Your task to perform on an android device: empty trash in google photos Image 0: 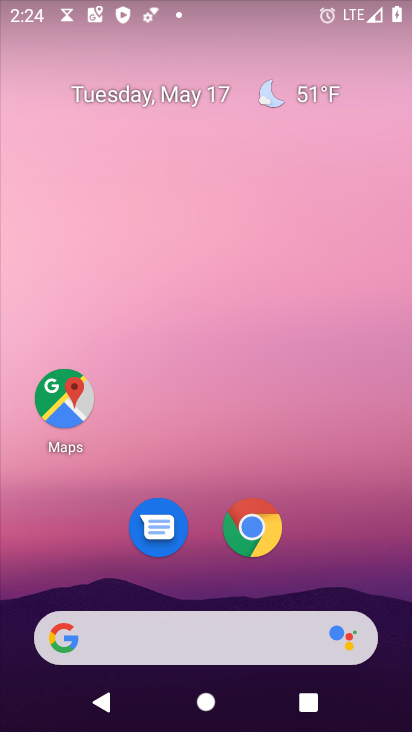
Step 0: drag from (324, 526) to (263, 171)
Your task to perform on an android device: empty trash in google photos Image 1: 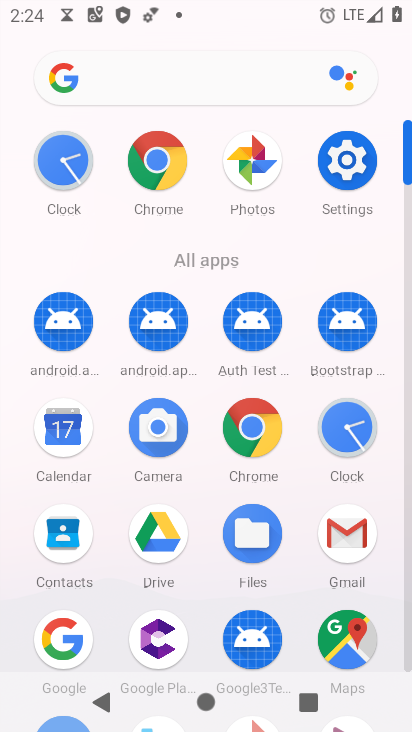
Step 1: click (251, 161)
Your task to perform on an android device: empty trash in google photos Image 2: 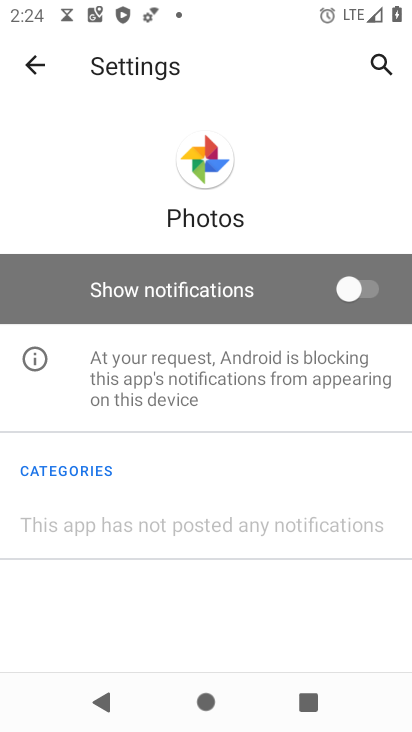
Step 2: click (27, 67)
Your task to perform on an android device: empty trash in google photos Image 3: 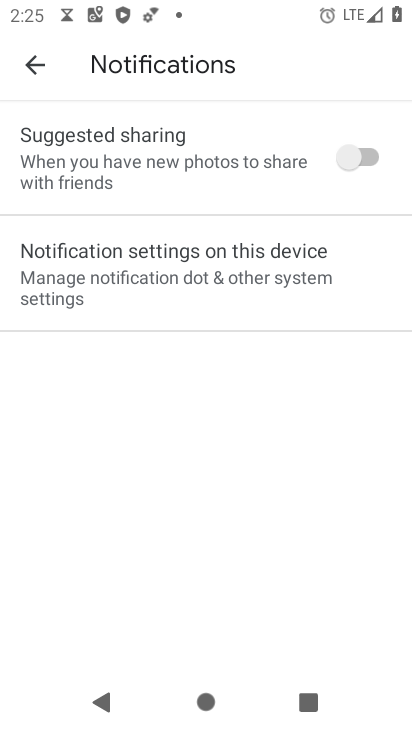
Step 3: click (27, 67)
Your task to perform on an android device: empty trash in google photos Image 4: 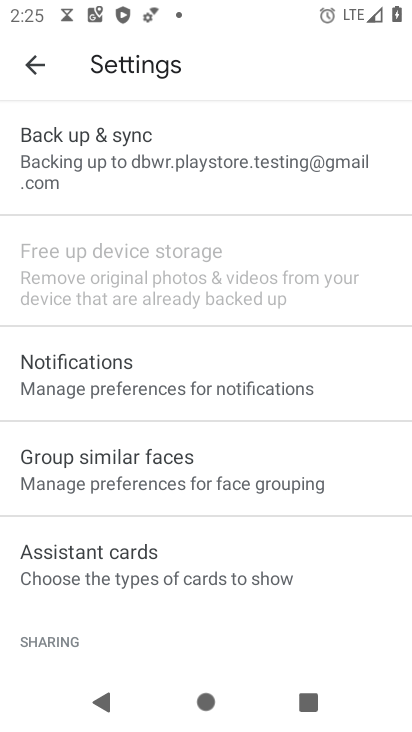
Step 4: click (27, 67)
Your task to perform on an android device: empty trash in google photos Image 5: 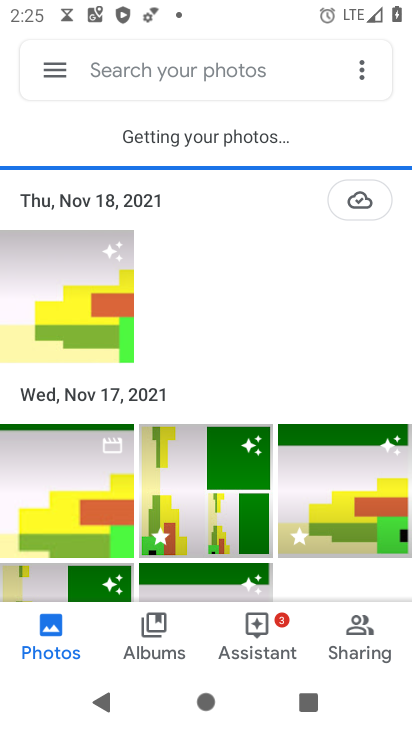
Step 5: click (47, 69)
Your task to perform on an android device: empty trash in google photos Image 6: 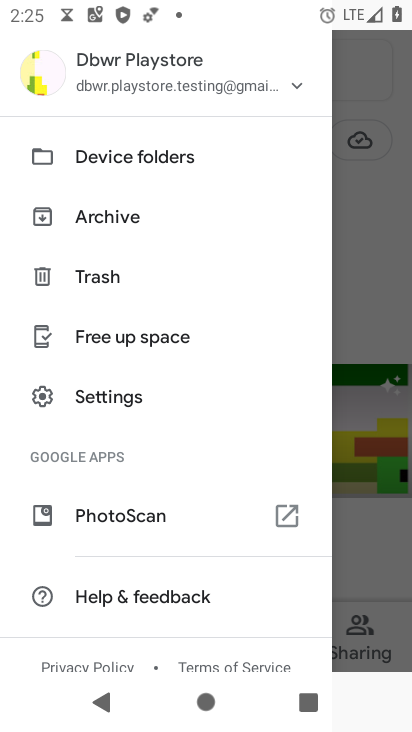
Step 6: click (91, 283)
Your task to perform on an android device: empty trash in google photos Image 7: 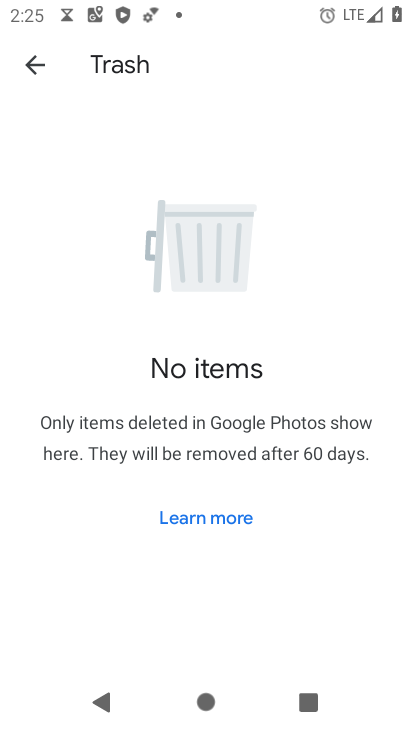
Step 7: task complete